Your task to perform on an android device: Open Yahoo.com Image 0: 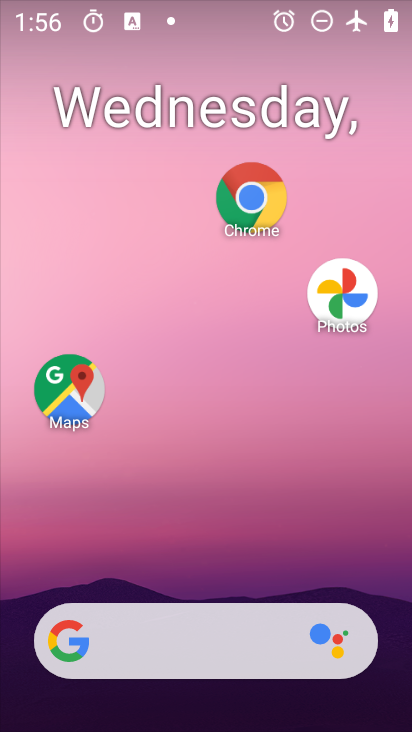
Step 0: click (268, 219)
Your task to perform on an android device: Open Yahoo.com Image 1: 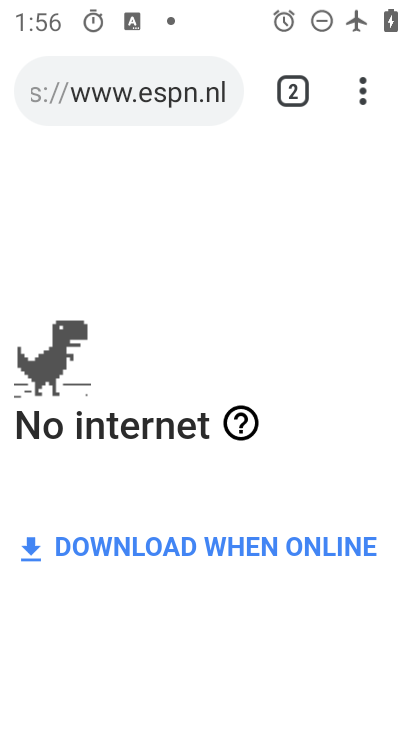
Step 1: click (184, 103)
Your task to perform on an android device: Open Yahoo.com Image 2: 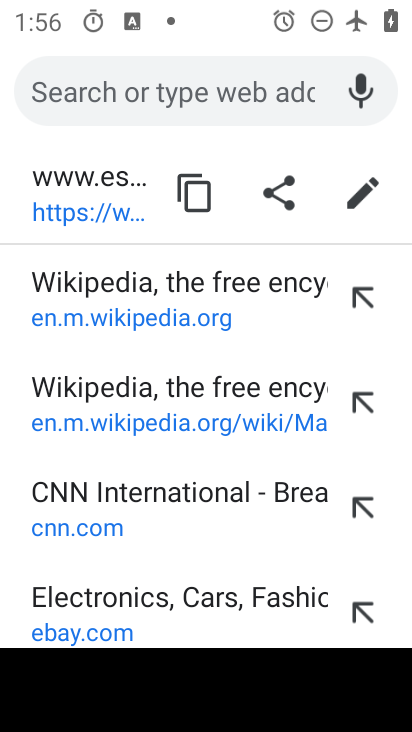
Step 2: drag from (199, 500) to (242, 257)
Your task to perform on an android device: Open Yahoo.com Image 3: 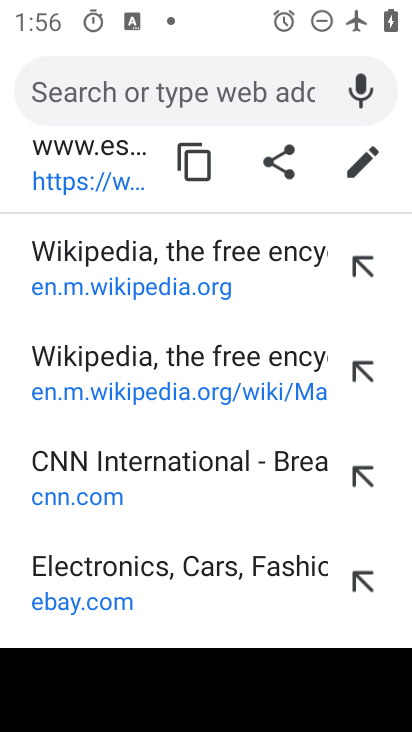
Step 3: drag from (255, 549) to (297, 282)
Your task to perform on an android device: Open Yahoo.com Image 4: 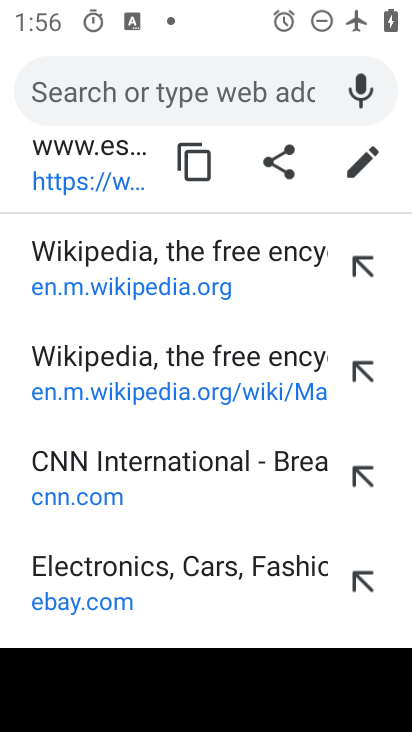
Step 4: type "yahoo"
Your task to perform on an android device: Open Yahoo.com Image 5: 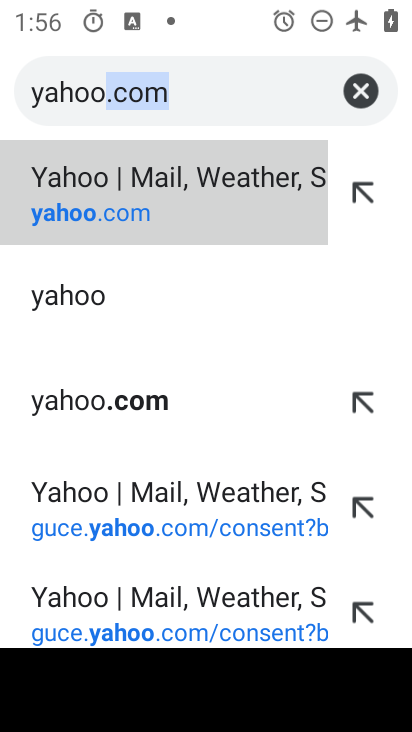
Step 5: click (165, 418)
Your task to perform on an android device: Open Yahoo.com Image 6: 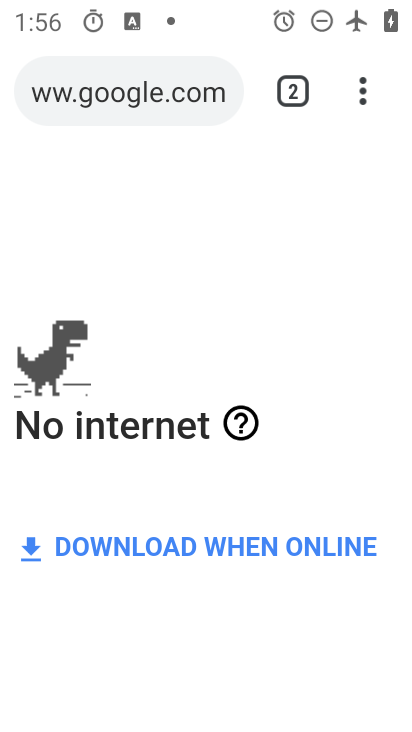
Step 6: task complete